Your task to perform on an android device: turn smart compose on in the gmail app Image 0: 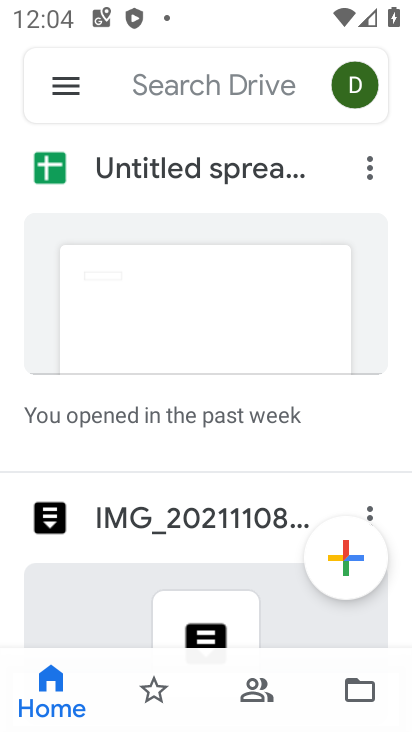
Step 0: press home button
Your task to perform on an android device: turn smart compose on in the gmail app Image 1: 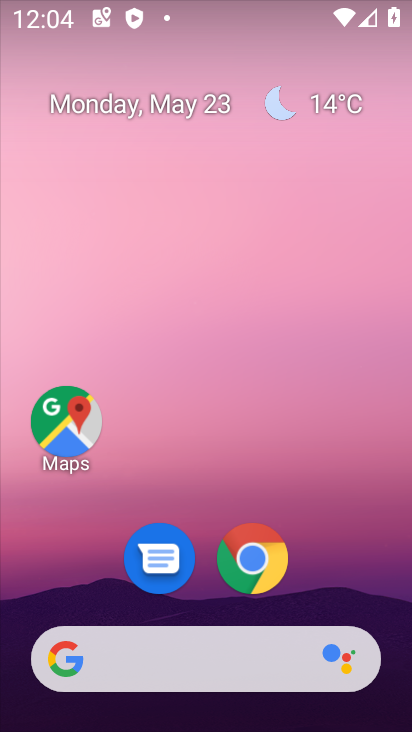
Step 1: drag from (363, 599) to (411, 436)
Your task to perform on an android device: turn smart compose on in the gmail app Image 2: 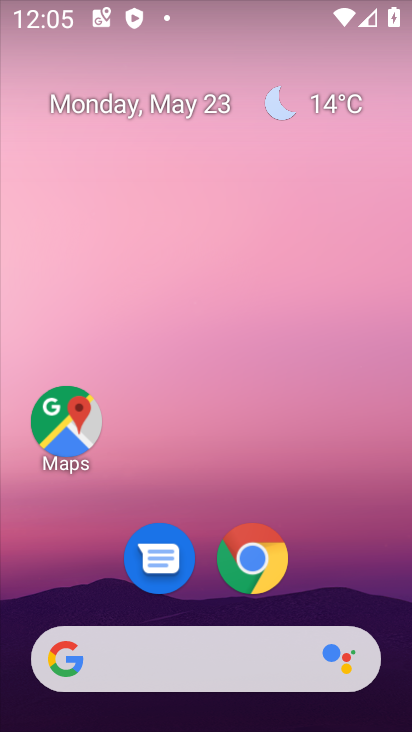
Step 2: drag from (341, 620) to (357, 15)
Your task to perform on an android device: turn smart compose on in the gmail app Image 3: 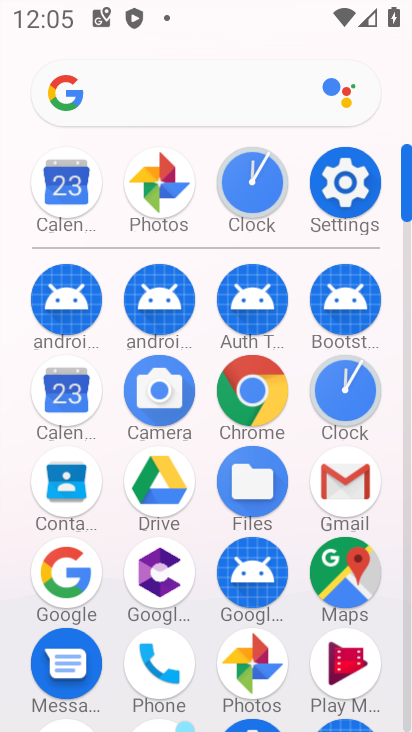
Step 3: click (343, 475)
Your task to perform on an android device: turn smart compose on in the gmail app Image 4: 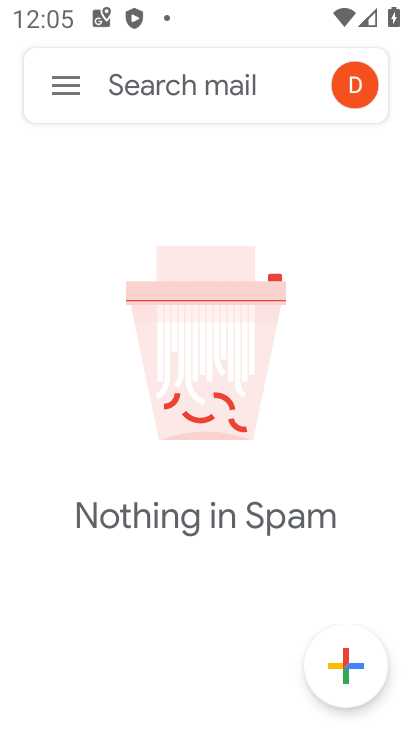
Step 4: click (60, 88)
Your task to perform on an android device: turn smart compose on in the gmail app Image 5: 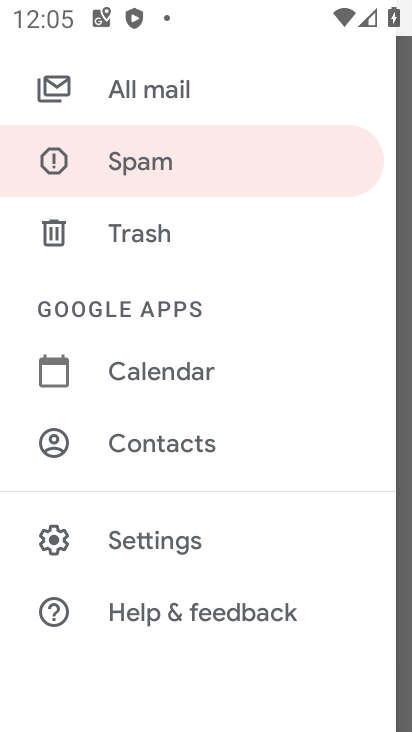
Step 5: click (154, 537)
Your task to perform on an android device: turn smart compose on in the gmail app Image 6: 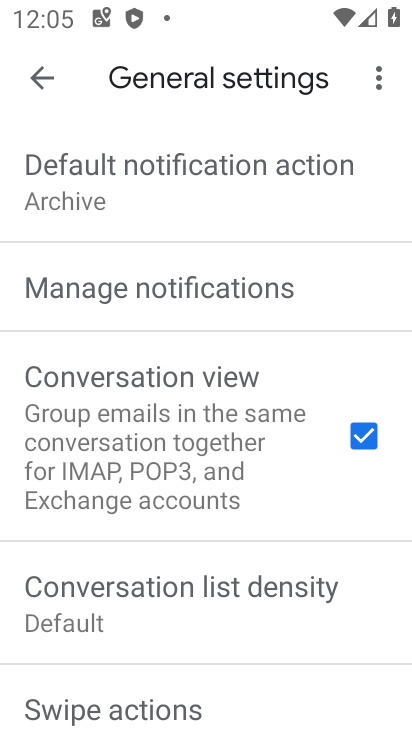
Step 6: click (51, 78)
Your task to perform on an android device: turn smart compose on in the gmail app Image 7: 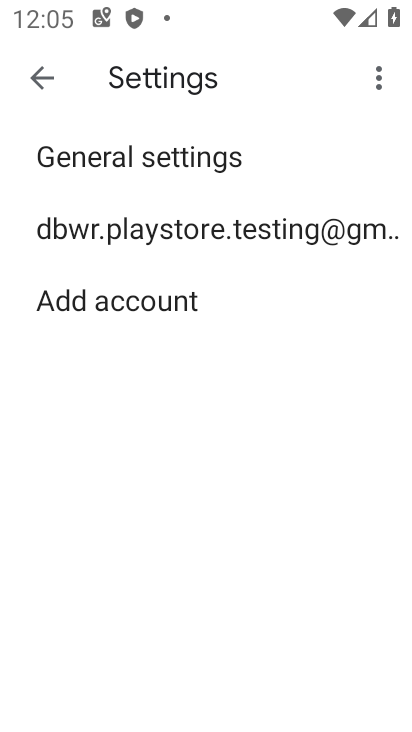
Step 7: click (123, 237)
Your task to perform on an android device: turn smart compose on in the gmail app Image 8: 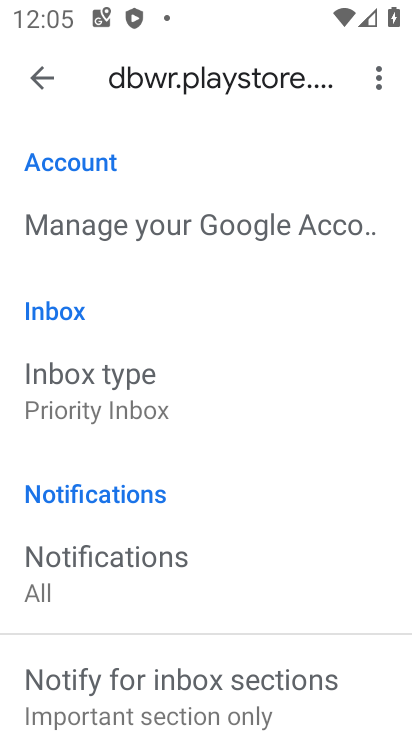
Step 8: task complete